Your task to perform on an android device: see creations saved in the google photos Image 0: 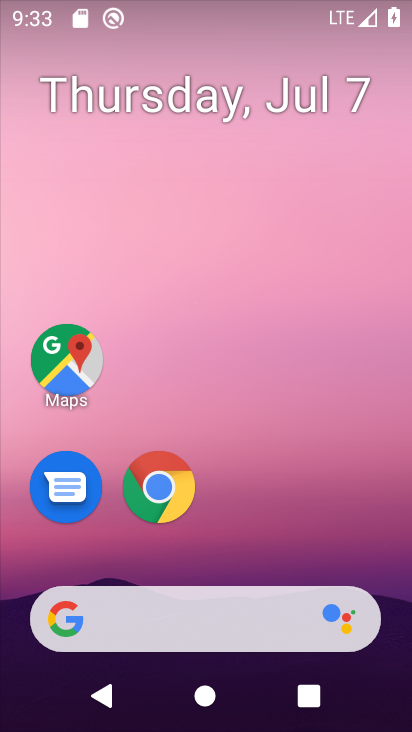
Step 0: drag from (352, 551) to (360, 140)
Your task to perform on an android device: see creations saved in the google photos Image 1: 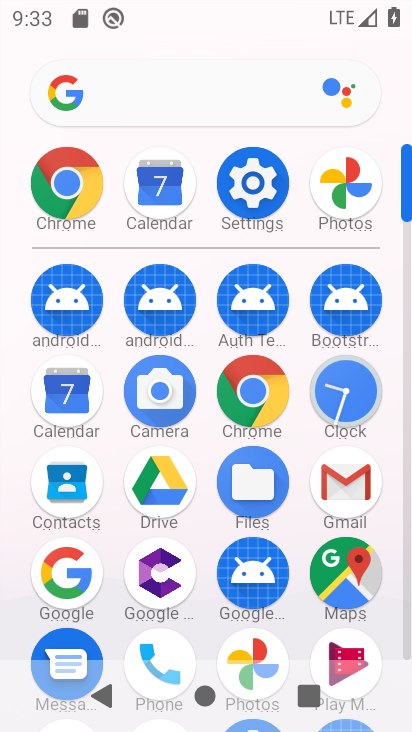
Step 1: click (340, 183)
Your task to perform on an android device: see creations saved in the google photos Image 2: 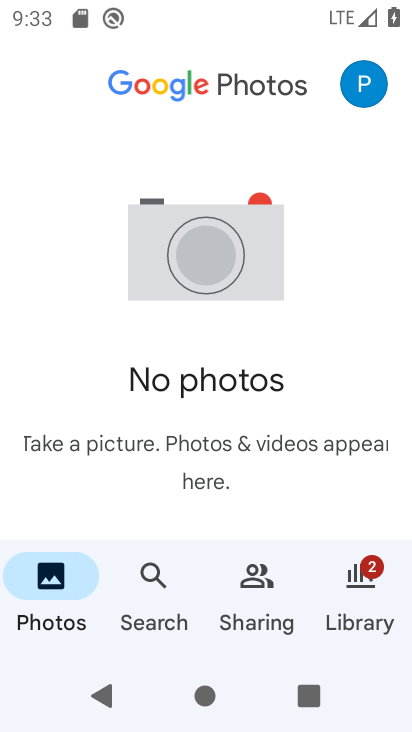
Step 2: click (152, 581)
Your task to perform on an android device: see creations saved in the google photos Image 3: 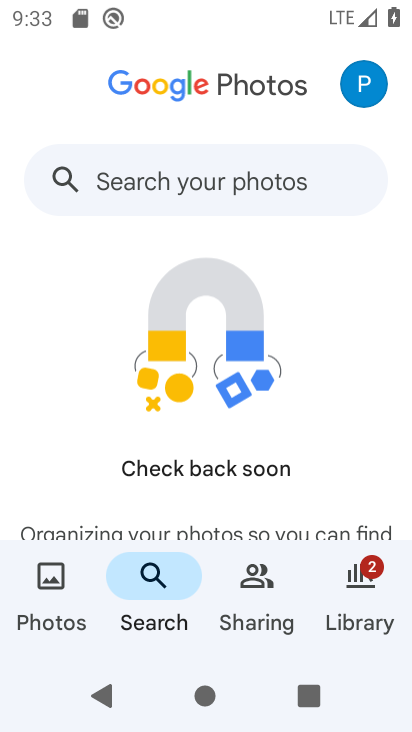
Step 3: drag from (215, 471) to (227, 373)
Your task to perform on an android device: see creations saved in the google photos Image 4: 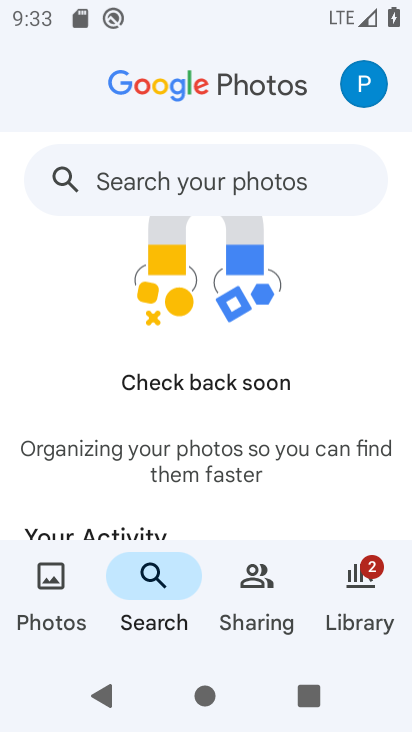
Step 4: drag from (354, 479) to (355, 388)
Your task to perform on an android device: see creations saved in the google photos Image 5: 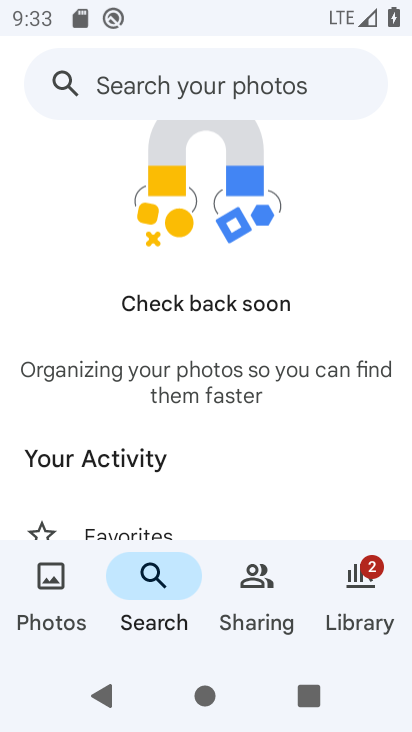
Step 5: drag from (337, 465) to (334, 387)
Your task to perform on an android device: see creations saved in the google photos Image 6: 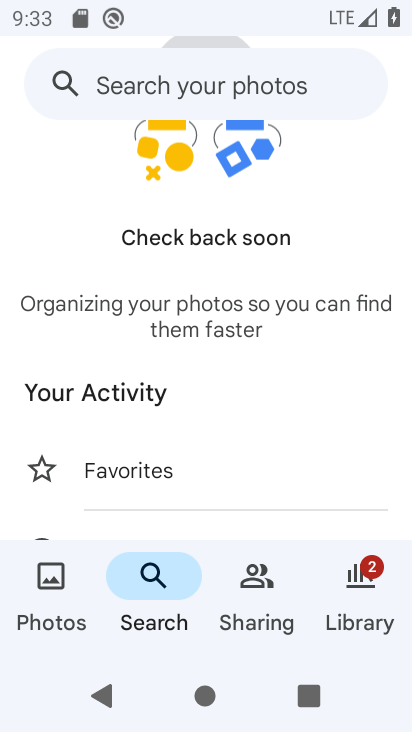
Step 6: drag from (327, 462) to (334, 347)
Your task to perform on an android device: see creations saved in the google photos Image 7: 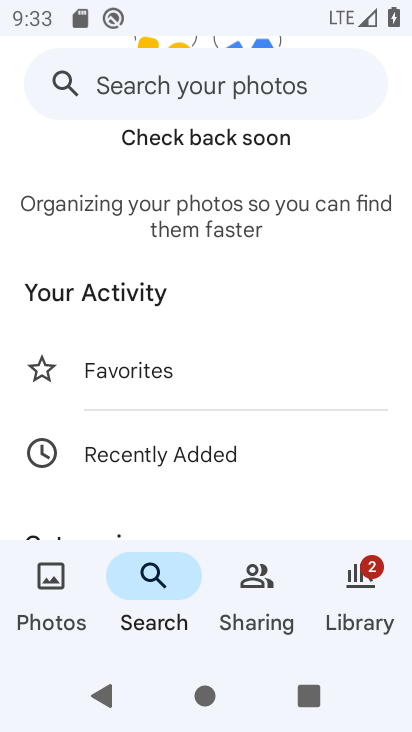
Step 7: drag from (324, 488) to (327, 362)
Your task to perform on an android device: see creations saved in the google photos Image 8: 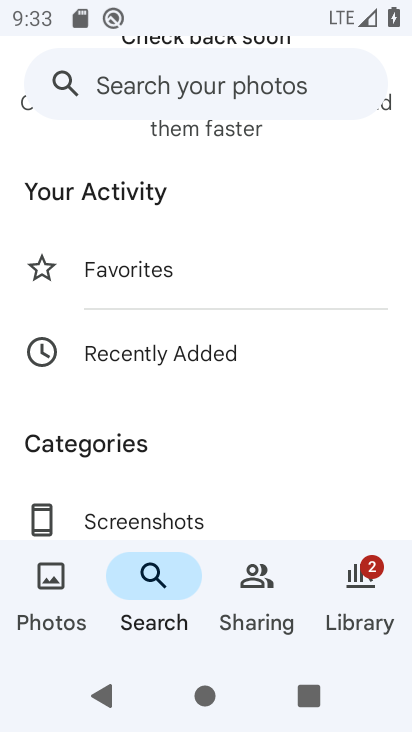
Step 8: drag from (300, 432) to (317, 297)
Your task to perform on an android device: see creations saved in the google photos Image 9: 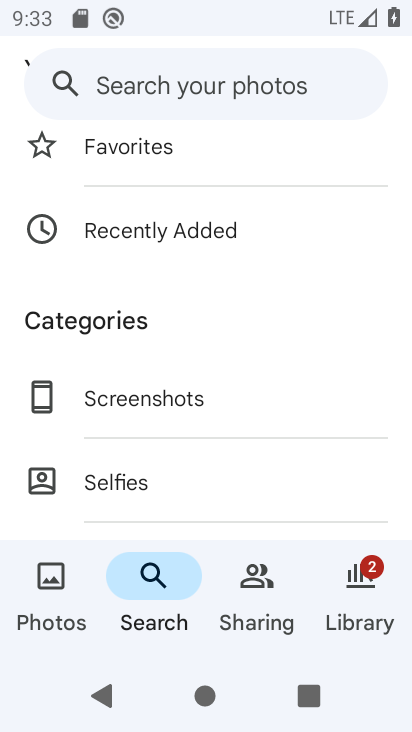
Step 9: drag from (271, 432) to (287, 207)
Your task to perform on an android device: see creations saved in the google photos Image 10: 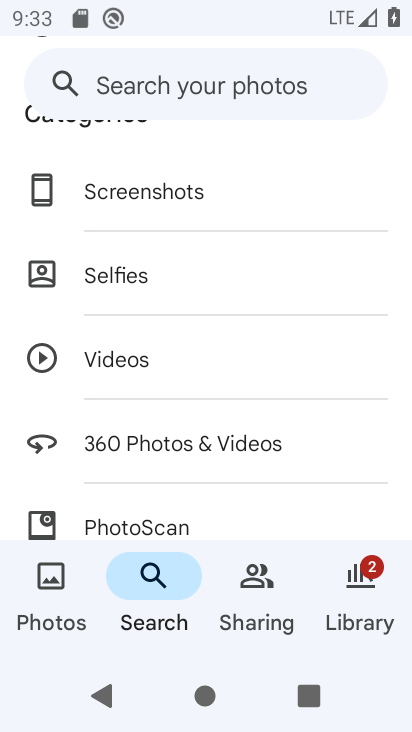
Step 10: drag from (303, 478) to (318, 264)
Your task to perform on an android device: see creations saved in the google photos Image 11: 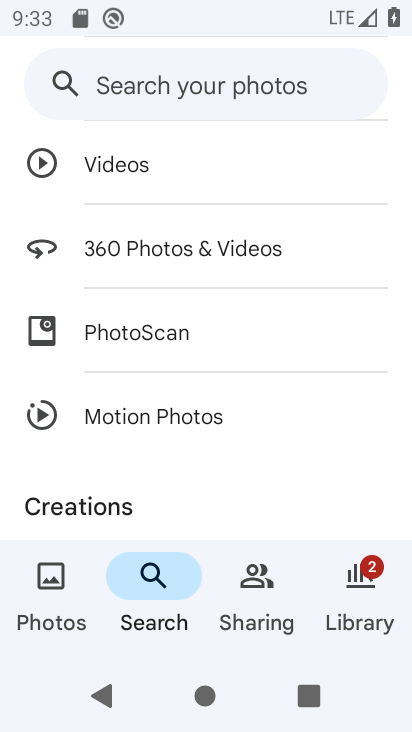
Step 11: drag from (307, 453) to (315, 247)
Your task to perform on an android device: see creations saved in the google photos Image 12: 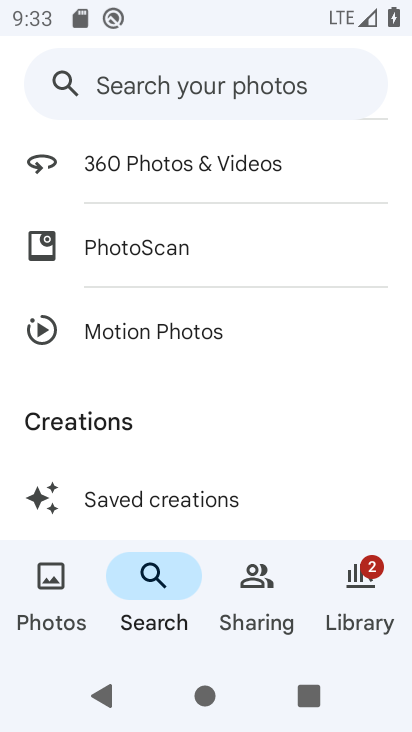
Step 12: click (201, 507)
Your task to perform on an android device: see creations saved in the google photos Image 13: 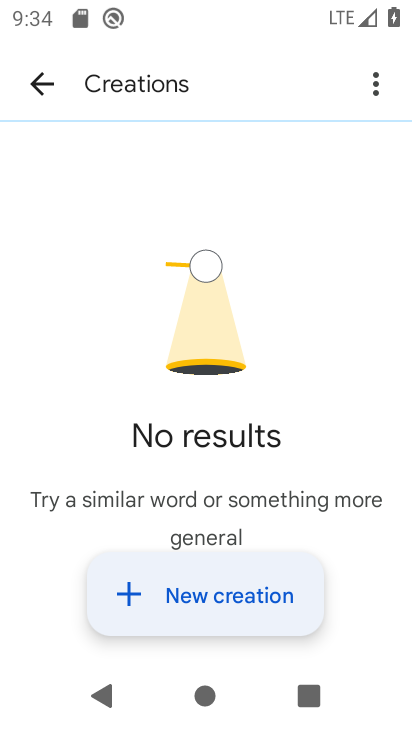
Step 13: task complete